Your task to perform on an android device: Go to display settings Image 0: 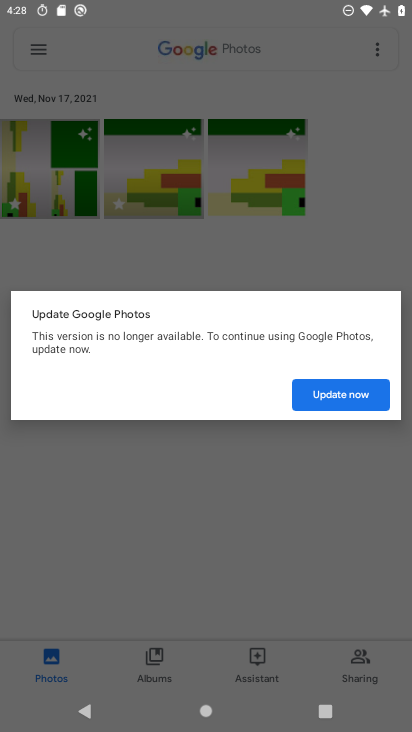
Step 0: press home button
Your task to perform on an android device: Go to display settings Image 1: 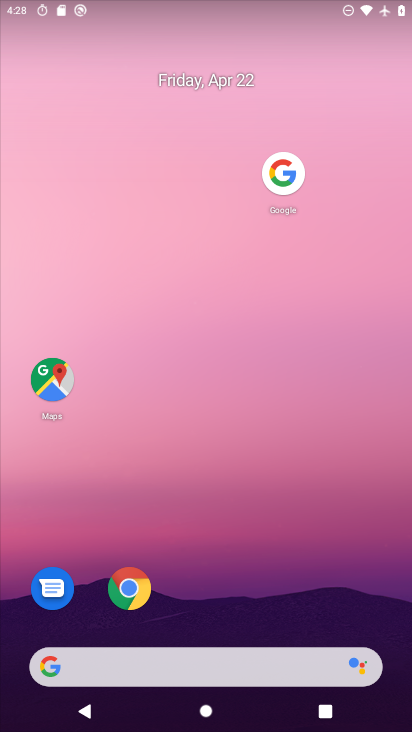
Step 1: drag from (213, 641) to (322, 10)
Your task to perform on an android device: Go to display settings Image 2: 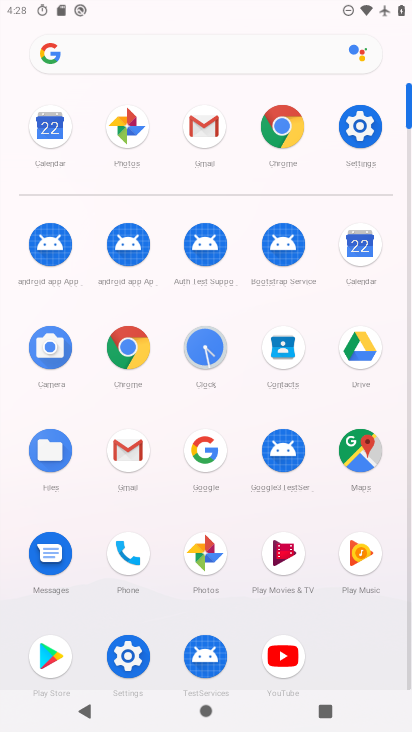
Step 2: click (360, 122)
Your task to perform on an android device: Go to display settings Image 3: 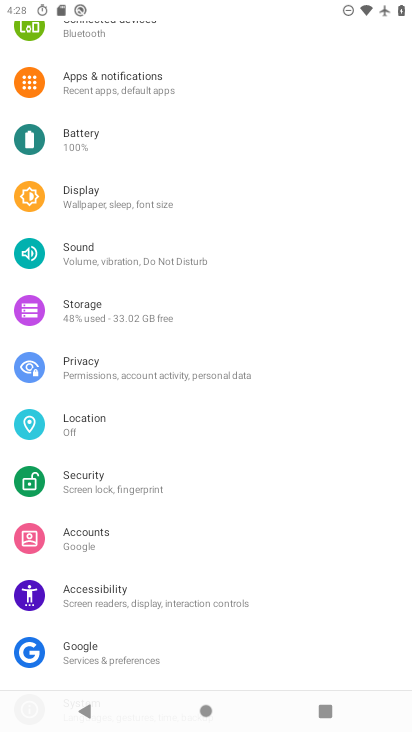
Step 3: click (82, 200)
Your task to perform on an android device: Go to display settings Image 4: 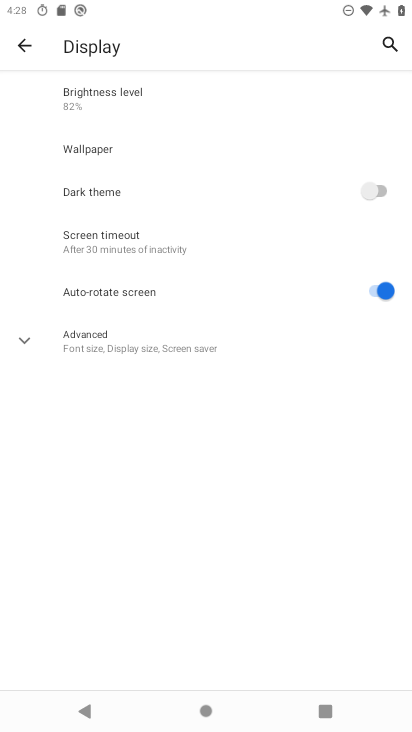
Step 4: click (92, 336)
Your task to perform on an android device: Go to display settings Image 5: 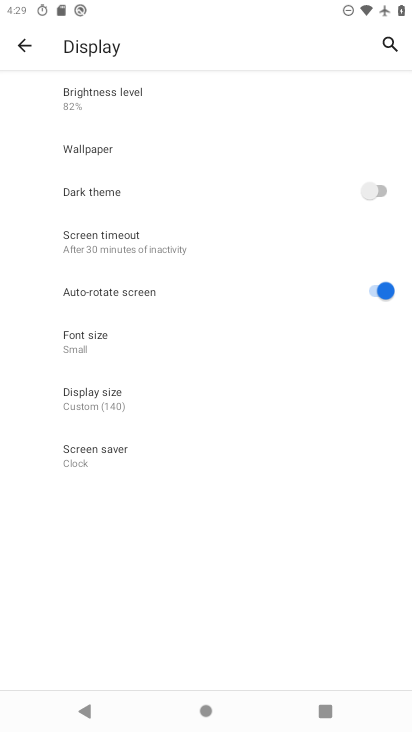
Step 5: task complete